Your task to perform on an android device: open app "Duolingo: language lessons" (install if not already installed) Image 0: 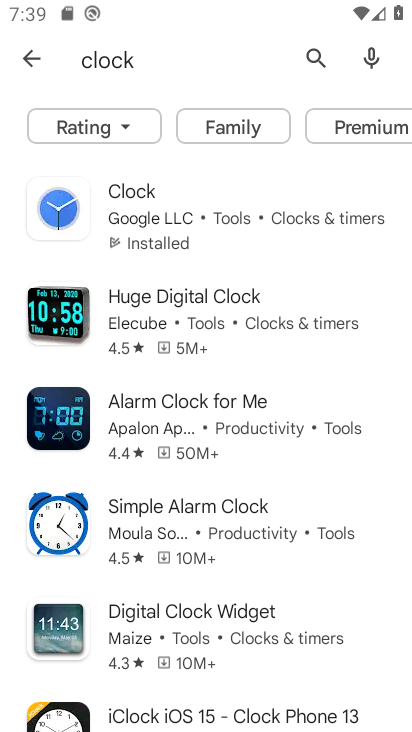
Step 0: click (30, 53)
Your task to perform on an android device: open app "Duolingo: language lessons" (install if not already installed) Image 1: 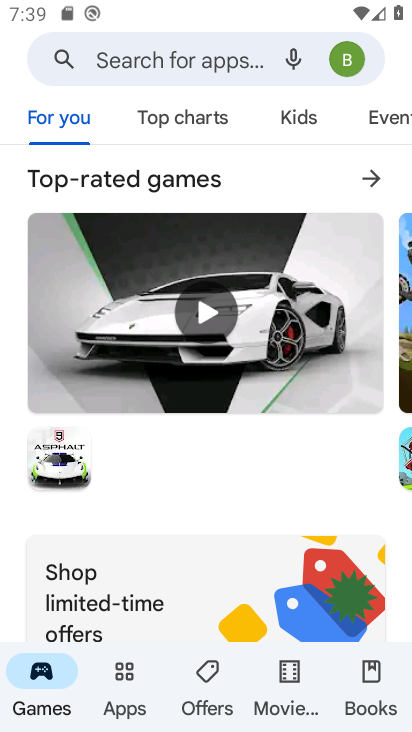
Step 1: click (129, 59)
Your task to perform on an android device: open app "Duolingo: language lessons" (install if not already installed) Image 2: 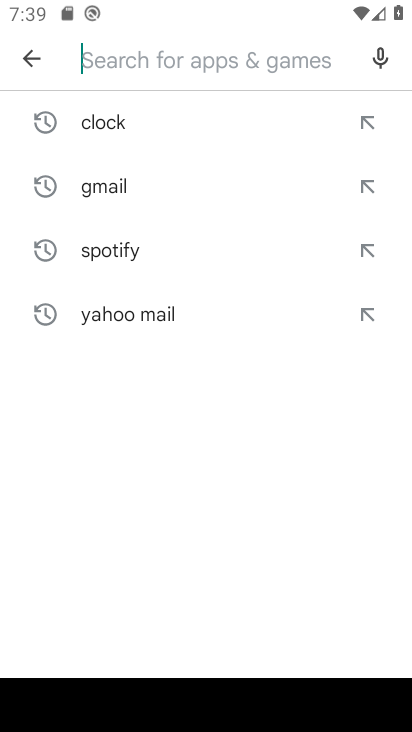
Step 2: type "Duolingo"
Your task to perform on an android device: open app "Duolingo: language lessons" (install if not already installed) Image 3: 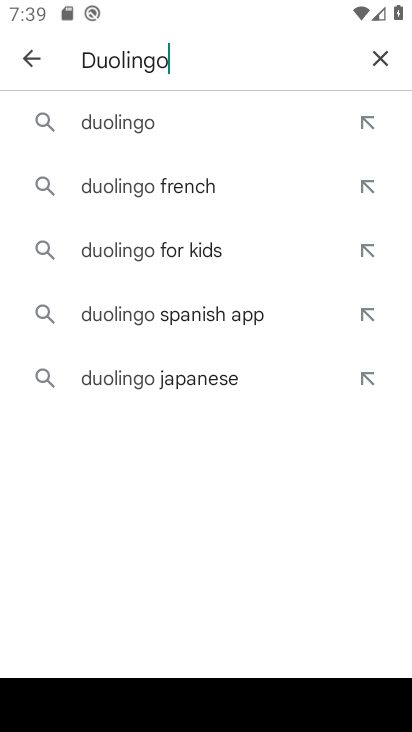
Step 3: click (114, 123)
Your task to perform on an android device: open app "Duolingo: language lessons" (install if not already installed) Image 4: 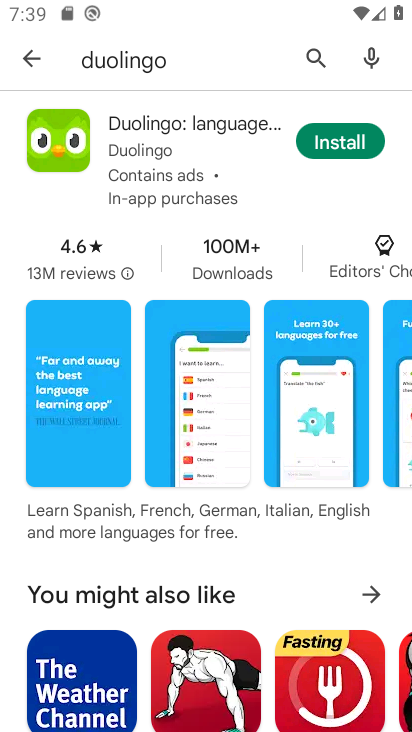
Step 4: click (328, 138)
Your task to perform on an android device: open app "Duolingo: language lessons" (install if not already installed) Image 5: 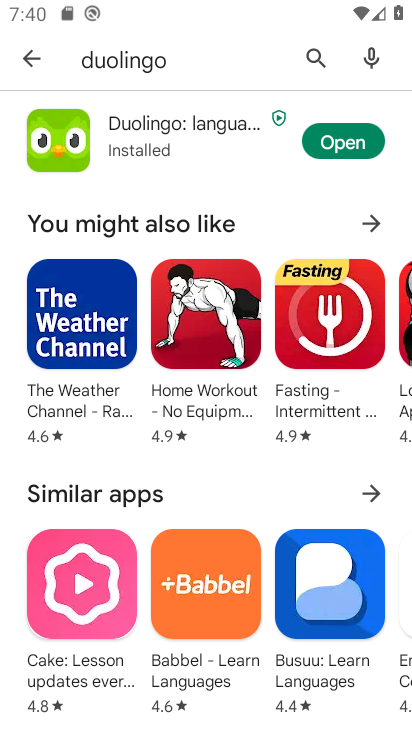
Step 5: click (328, 138)
Your task to perform on an android device: open app "Duolingo: language lessons" (install if not already installed) Image 6: 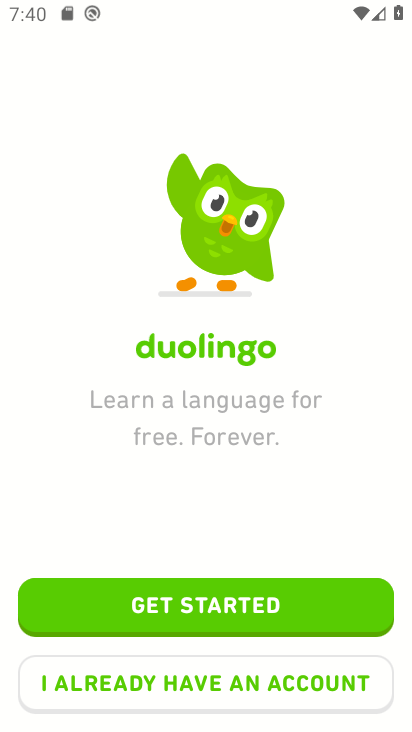
Step 6: task complete